Your task to perform on an android device: turn off notifications settings in the gmail app Image 0: 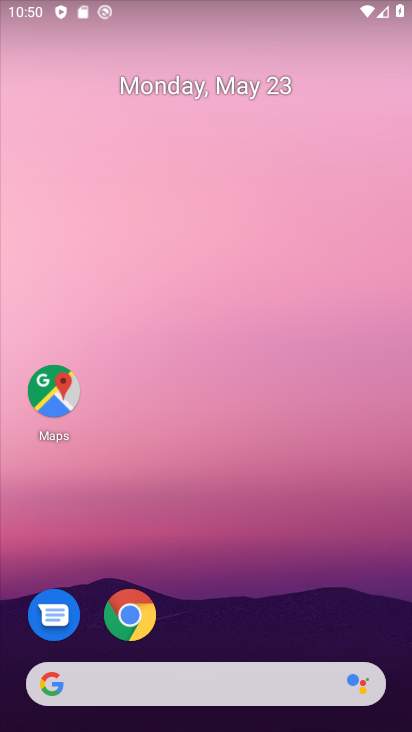
Step 0: drag from (193, 642) to (210, 109)
Your task to perform on an android device: turn off notifications settings in the gmail app Image 1: 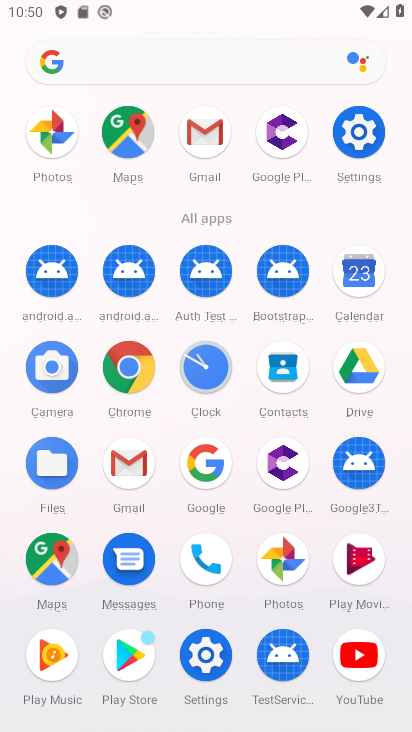
Step 1: click (355, 123)
Your task to perform on an android device: turn off notifications settings in the gmail app Image 2: 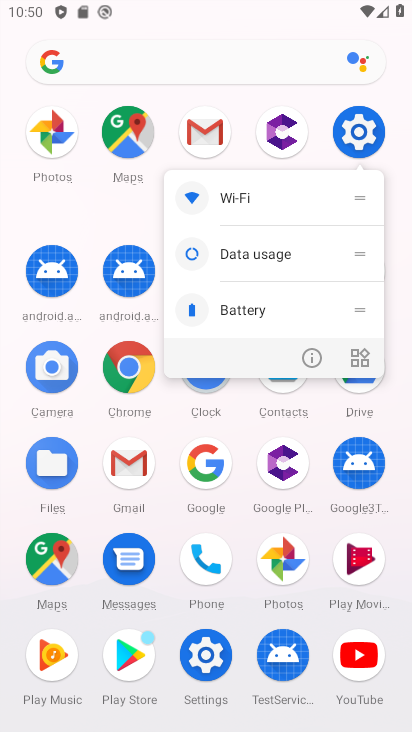
Step 2: click (357, 139)
Your task to perform on an android device: turn off notifications settings in the gmail app Image 3: 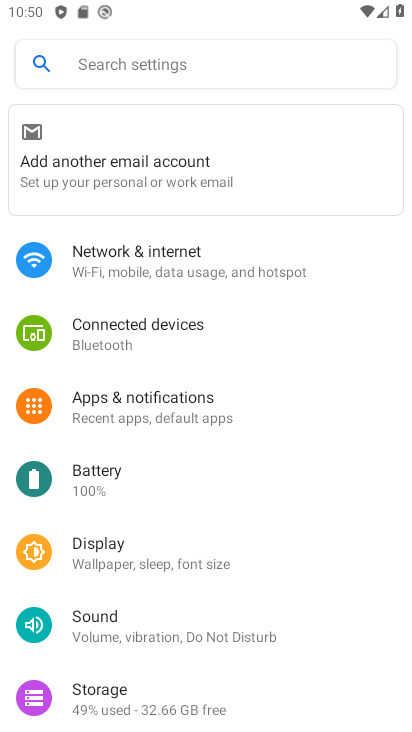
Step 3: click (83, 398)
Your task to perform on an android device: turn off notifications settings in the gmail app Image 4: 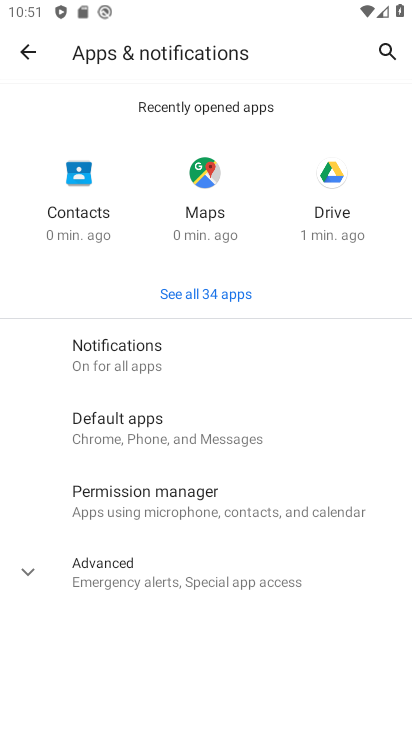
Step 4: click (177, 294)
Your task to perform on an android device: turn off notifications settings in the gmail app Image 5: 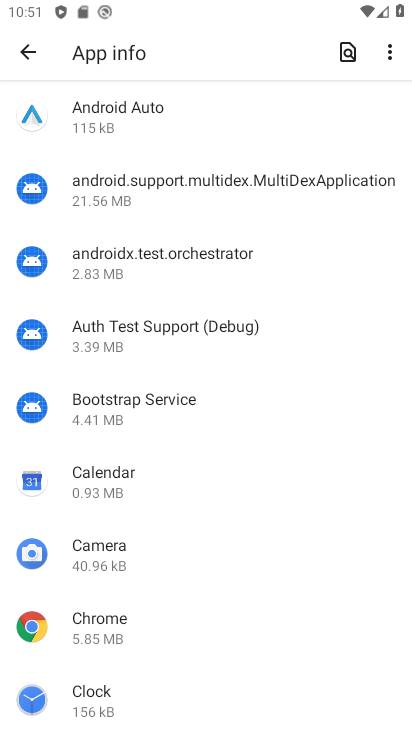
Step 5: drag from (88, 623) to (170, 67)
Your task to perform on an android device: turn off notifications settings in the gmail app Image 6: 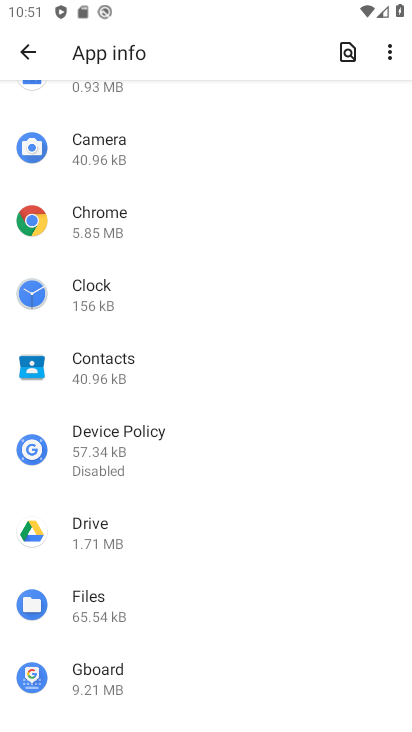
Step 6: drag from (53, 633) to (130, 46)
Your task to perform on an android device: turn off notifications settings in the gmail app Image 7: 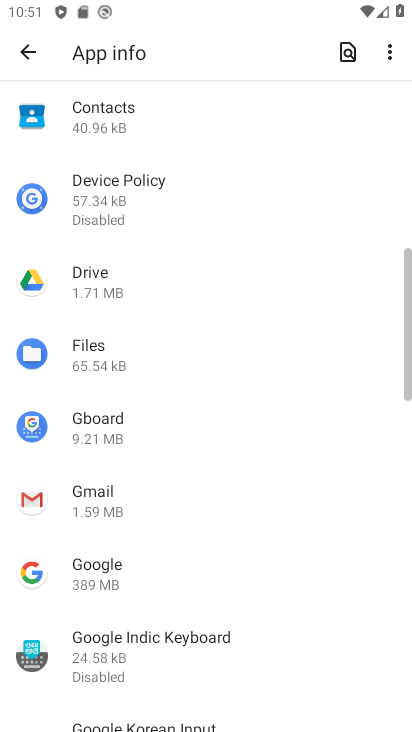
Step 7: click (26, 504)
Your task to perform on an android device: turn off notifications settings in the gmail app Image 8: 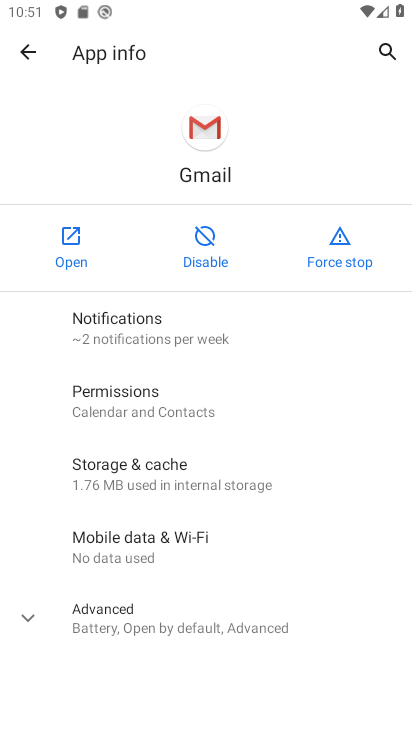
Step 8: click (127, 302)
Your task to perform on an android device: turn off notifications settings in the gmail app Image 9: 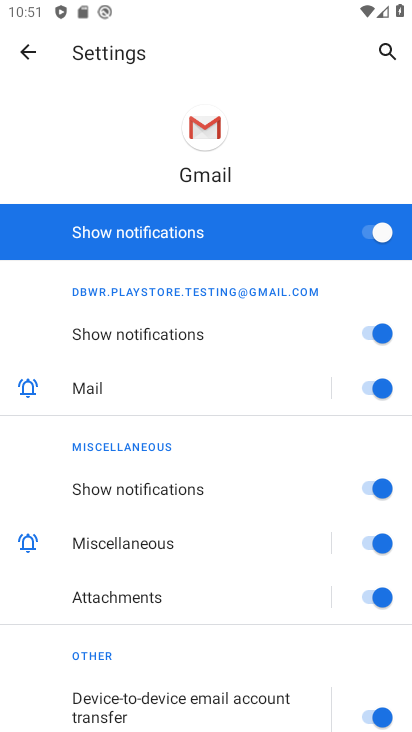
Step 9: click (372, 244)
Your task to perform on an android device: turn off notifications settings in the gmail app Image 10: 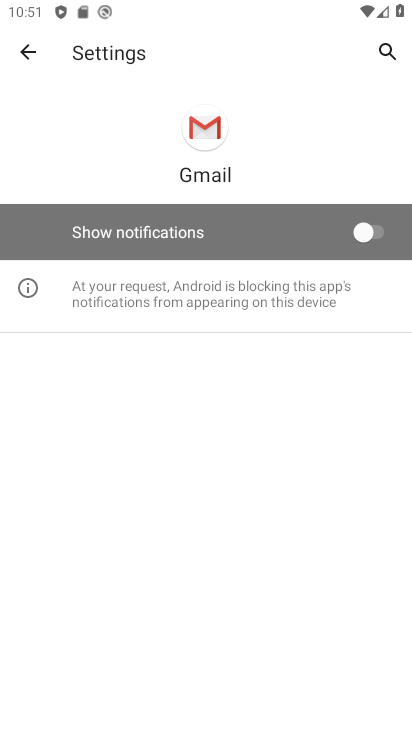
Step 10: task complete